Your task to perform on an android device: turn on improve location accuracy Image 0: 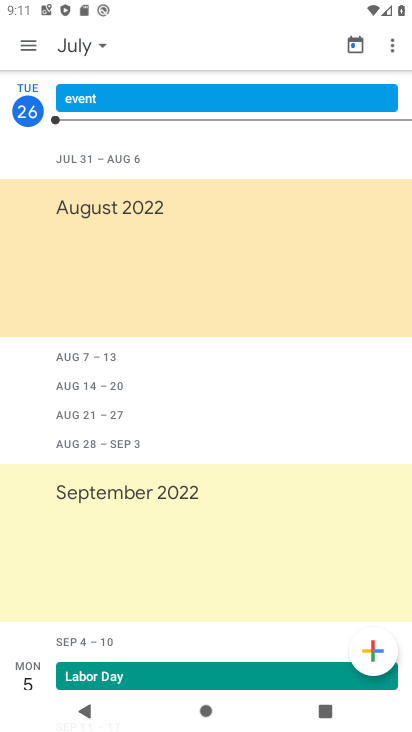
Step 0: press home button
Your task to perform on an android device: turn on improve location accuracy Image 1: 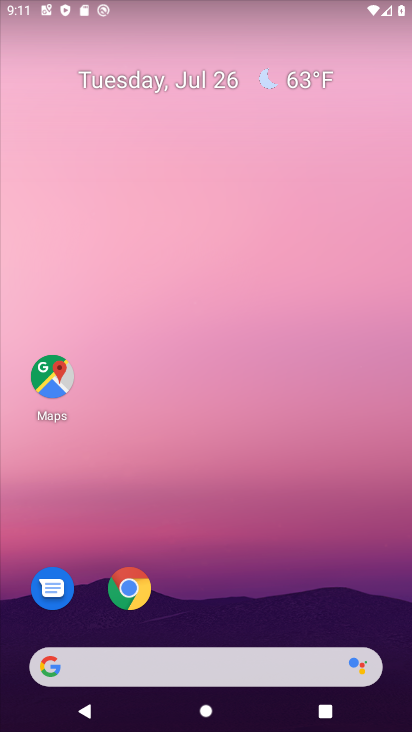
Step 1: drag from (240, 615) to (233, 343)
Your task to perform on an android device: turn on improve location accuracy Image 2: 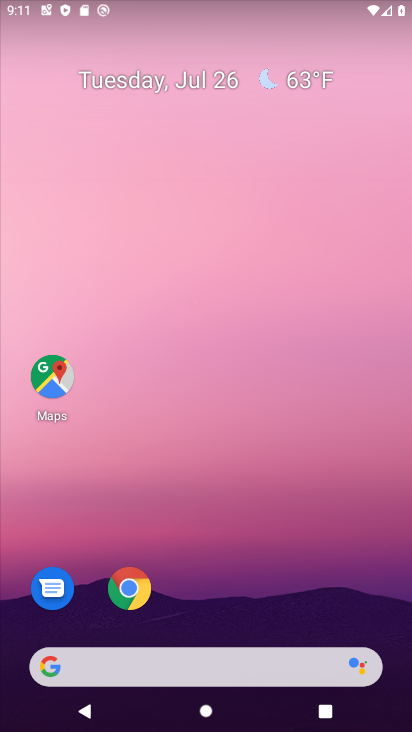
Step 2: click (262, 637)
Your task to perform on an android device: turn on improve location accuracy Image 3: 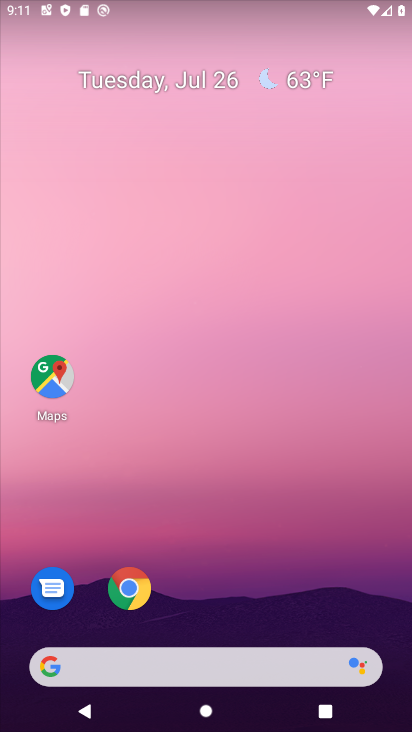
Step 3: drag from (262, 637) to (163, 105)
Your task to perform on an android device: turn on improve location accuracy Image 4: 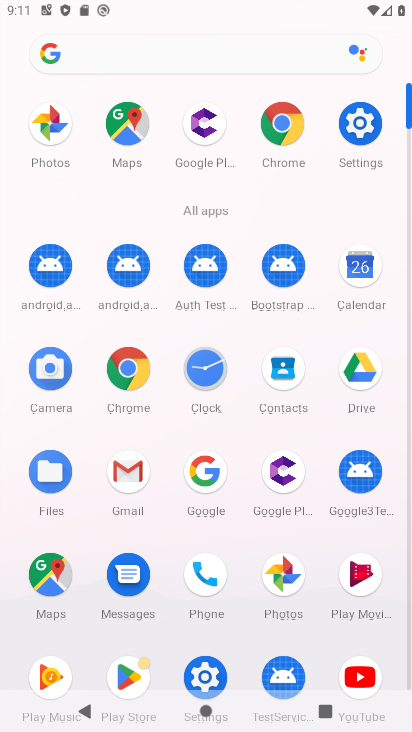
Step 4: click (364, 142)
Your task to perform on an android device: turn on improve location accuracy Image 5: 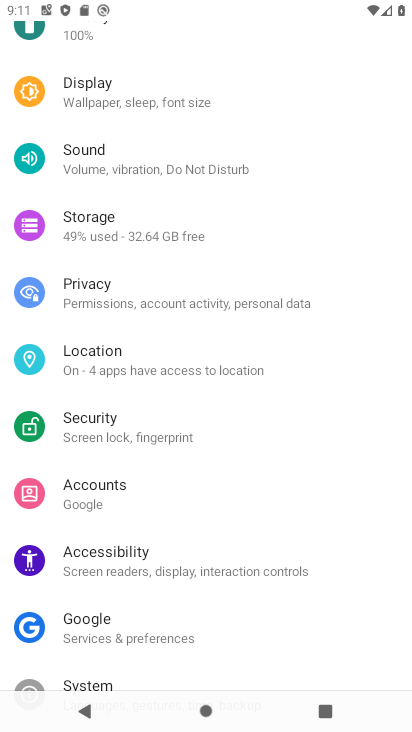
Step 5: click (139, 353)
Your task to perform on an android device: turn on improve location accuracy Image 6: 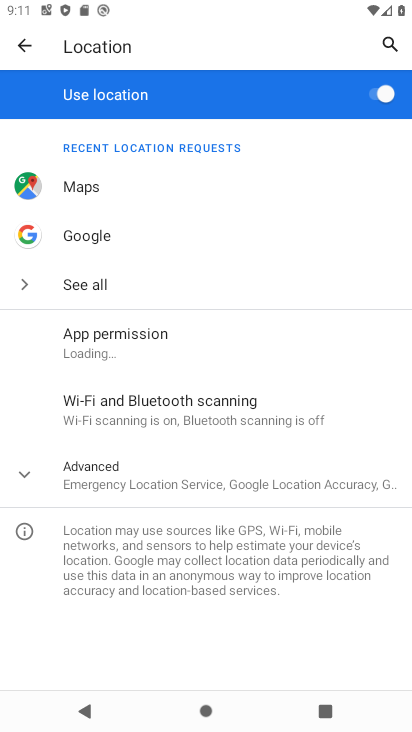
Step 6: click (134, 477)
Your task to perform on an android device: turn on improve location accuracy Image 7: 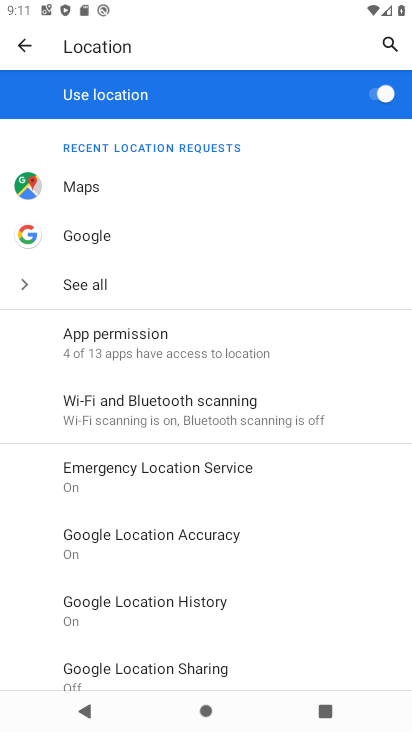
Step 7: task complete